Your task to perform on an android device: find photos in the google photos app Image 0: 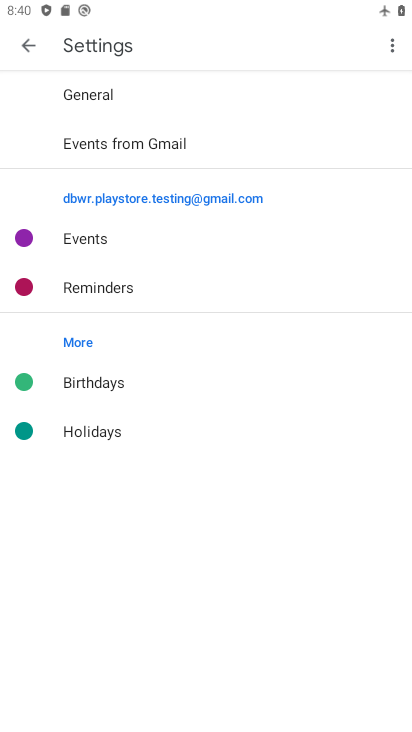
Step 0: press home button
Your task to perform on an android device: find photos in the google photos app Image 1: 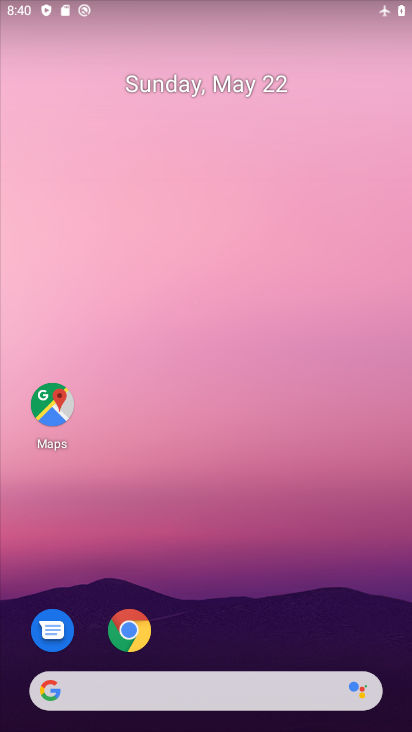
Step 1: drag from (394, 660) to (334, 47)
Your task to perform on an android device: find photos in the google photos app Image 2: 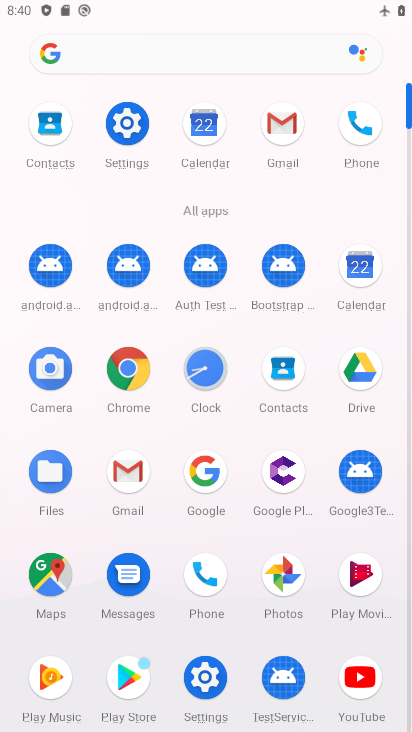
Step 2: click (291, 572)
Your task to perform on an android device: find photos in the google photos app Image 3: 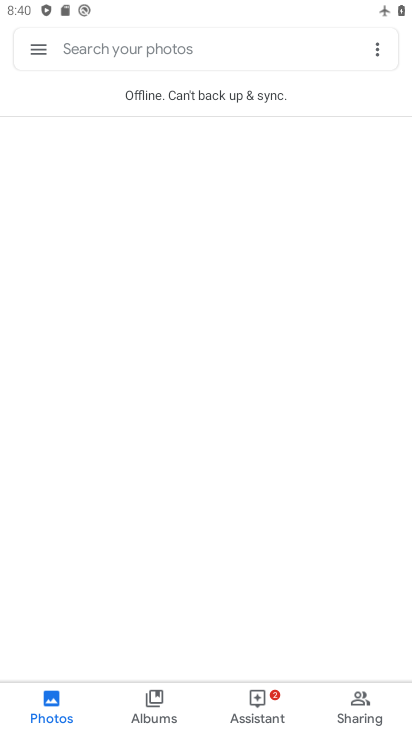
Step 3: task complete